Your task to perform on an android device: Do I have any events tomorrow? Image 0: 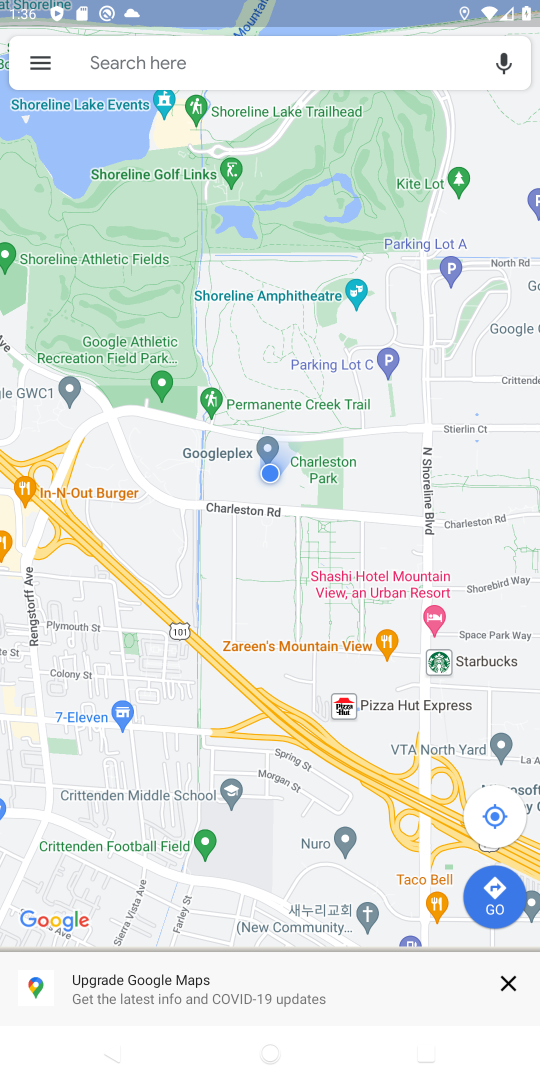
Step 0: drag from (252, 1075) to (276, 738)
Your task to perform on an android device: Do I have any events tomorrow? Image 1: 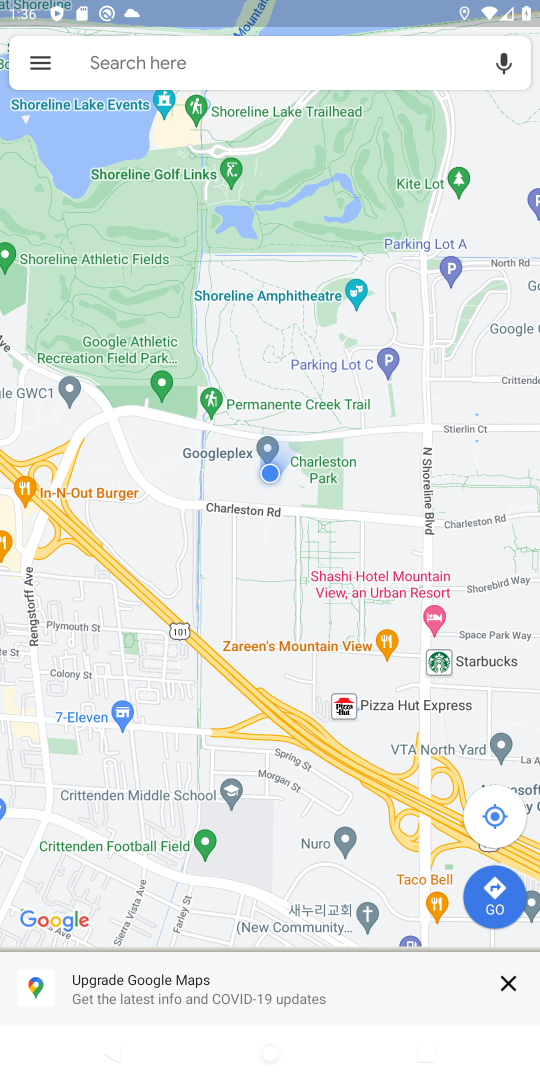
Step 1: press home button
Your task to perform on an android device: Do I have any events tomorrow? Image 2: 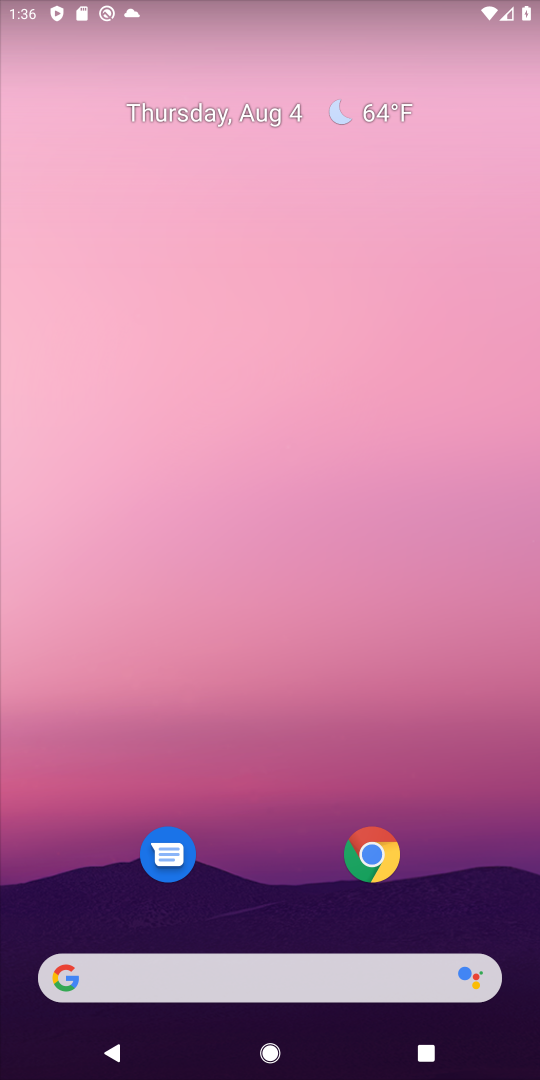
Step 2: drag from (272, 774) to (304, 291)
Your task to perform on an android device: Do I have any events tomorrow? Image 3: 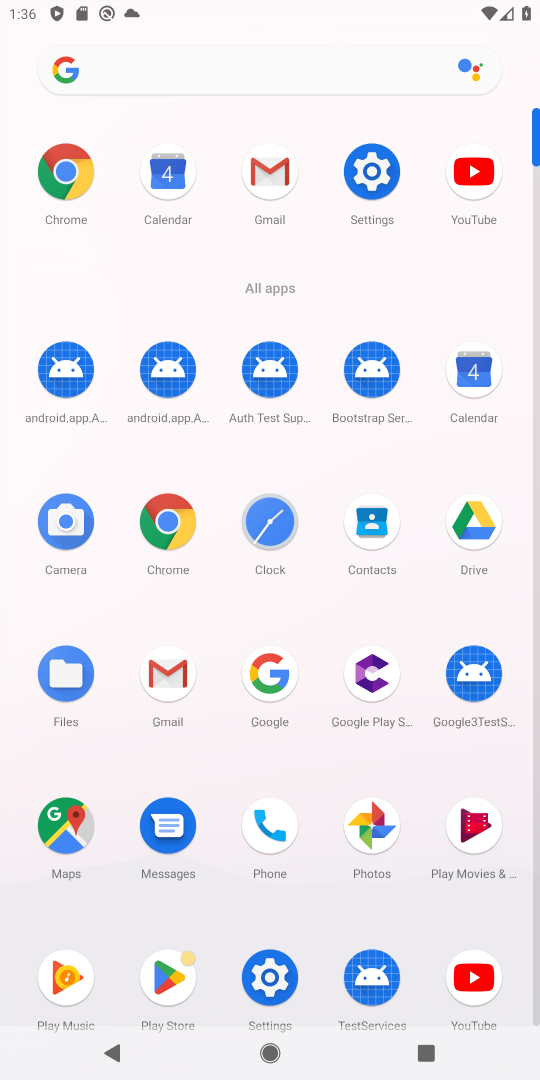
Step 3: click (476, 382)
Your task to perform on an android device: Do I have any events tomorrow? Image 4: 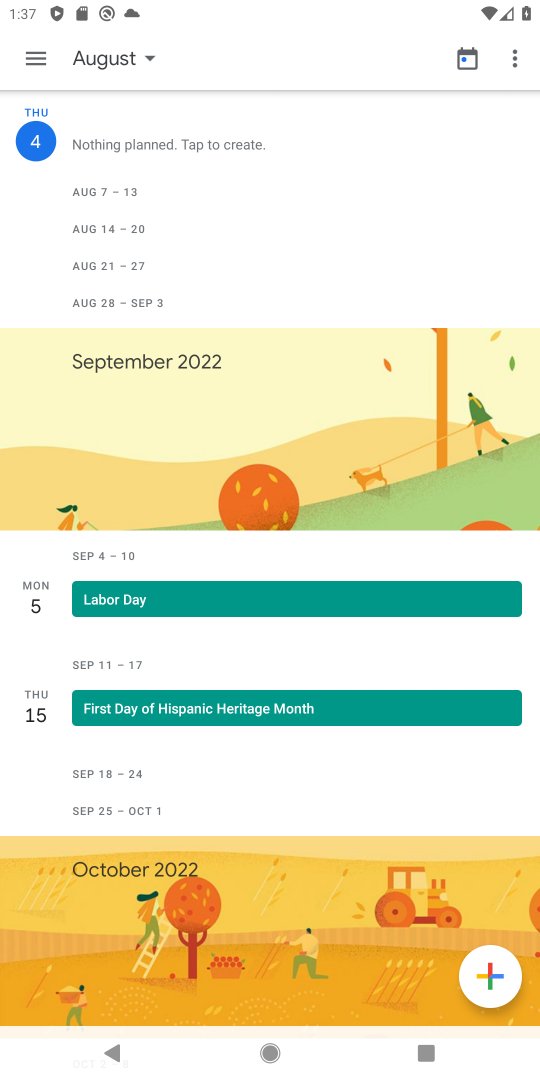
Step 4: task complete